Your task to perform on an android device: uninstall "Chime – Mobile Banking" Image 0: 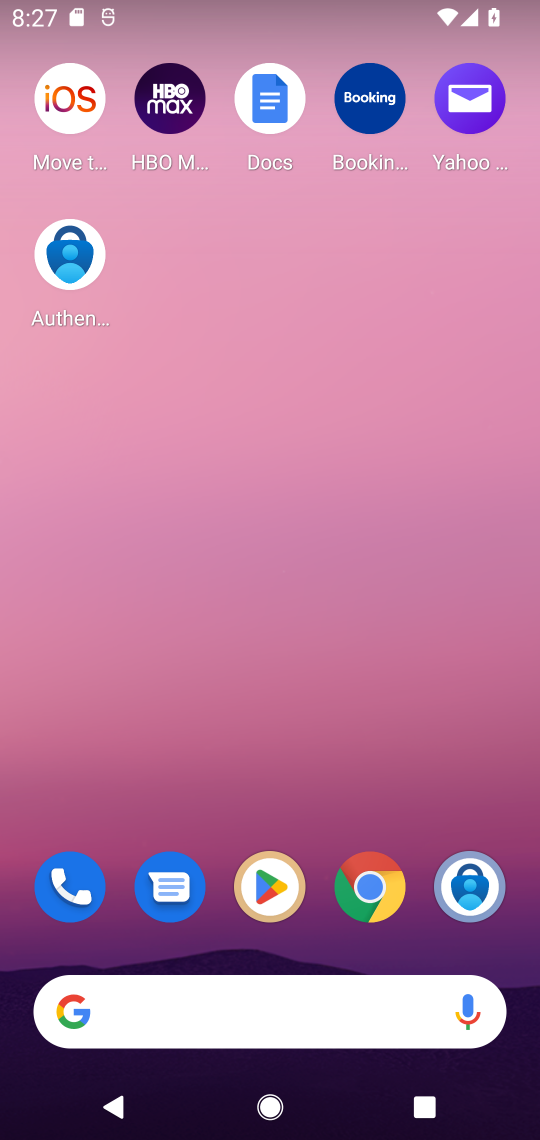
Step 0: drag from (307, 962) to (396, 52)
Your task to perform on an android device: uninstall "Chime – Mobile Banking" Image 1: 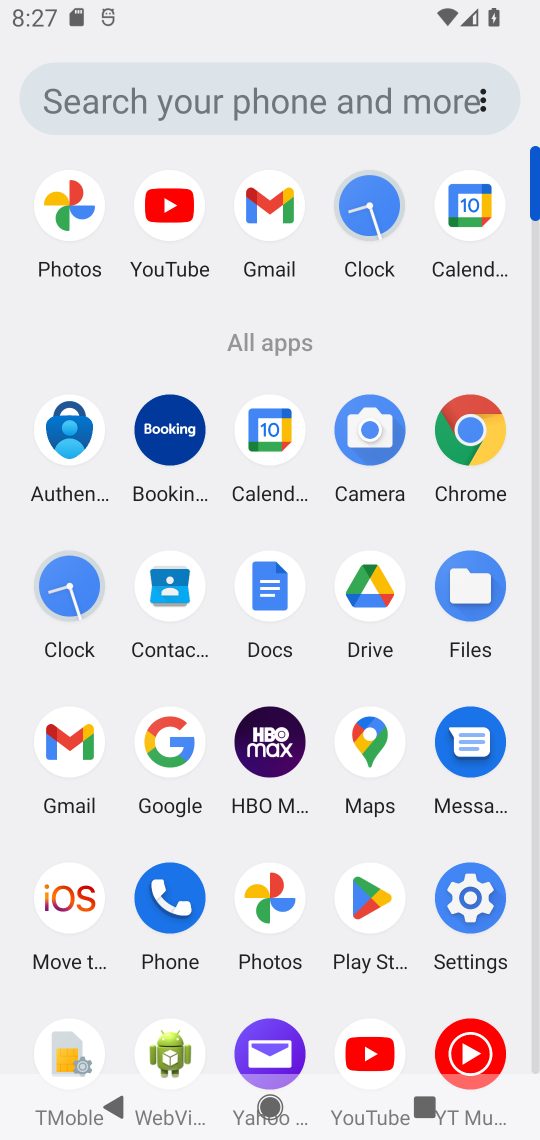
Step 1: click (537, 1044)
Your task to perform on an android device: uninstall "Chime – Mobile Banking" Image 2: 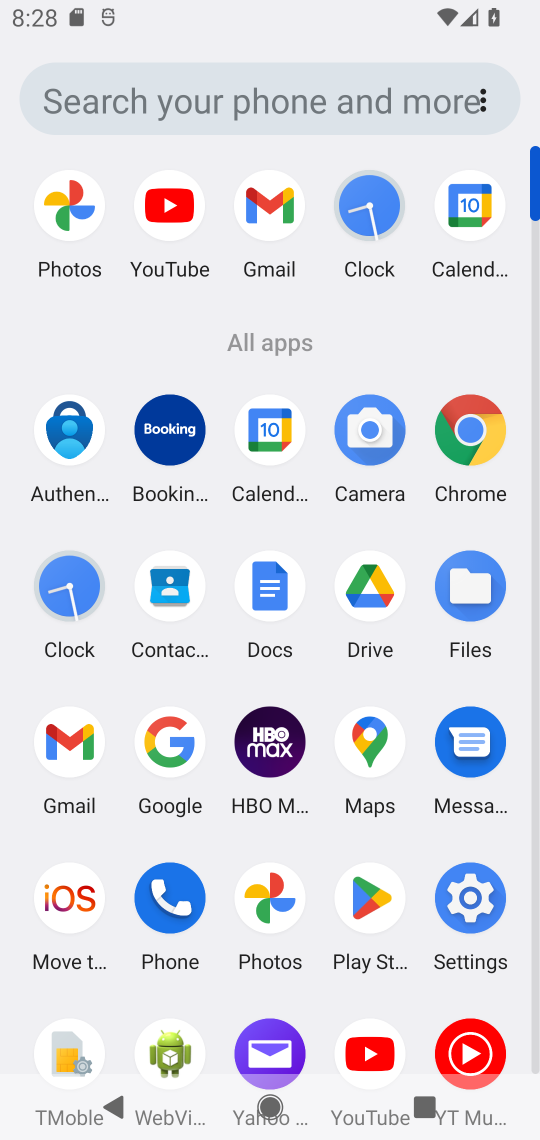
Step 2: click (537, 1044)
Your task to perform on an android device: uninstall "Chime – Mobile Banking" Image 3: 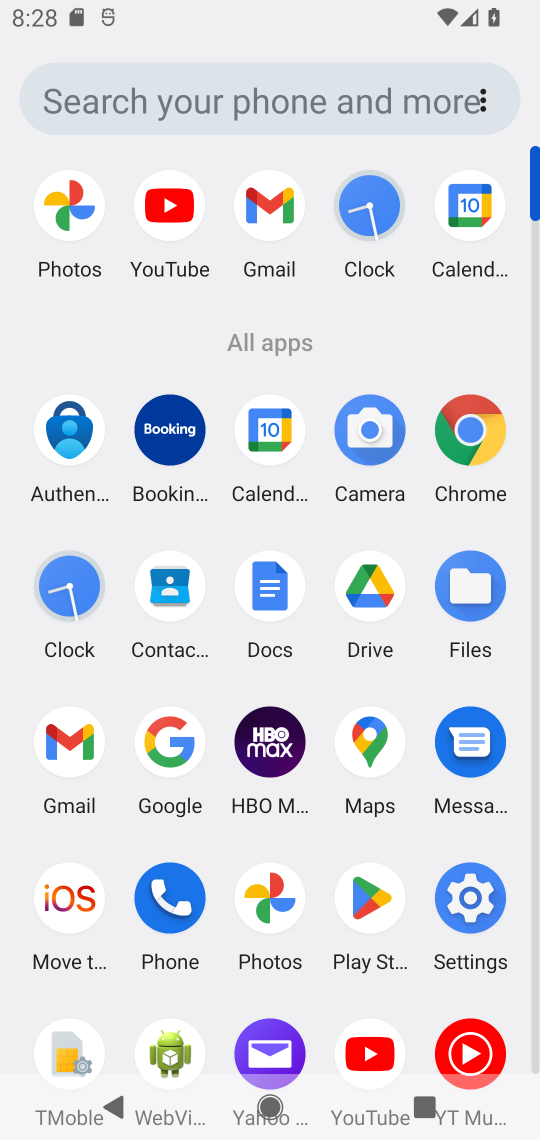
Step 3: click (537, 1044)
Your task to perform on an android device: uninstall "Chime – Mobile Banking" Image 4: 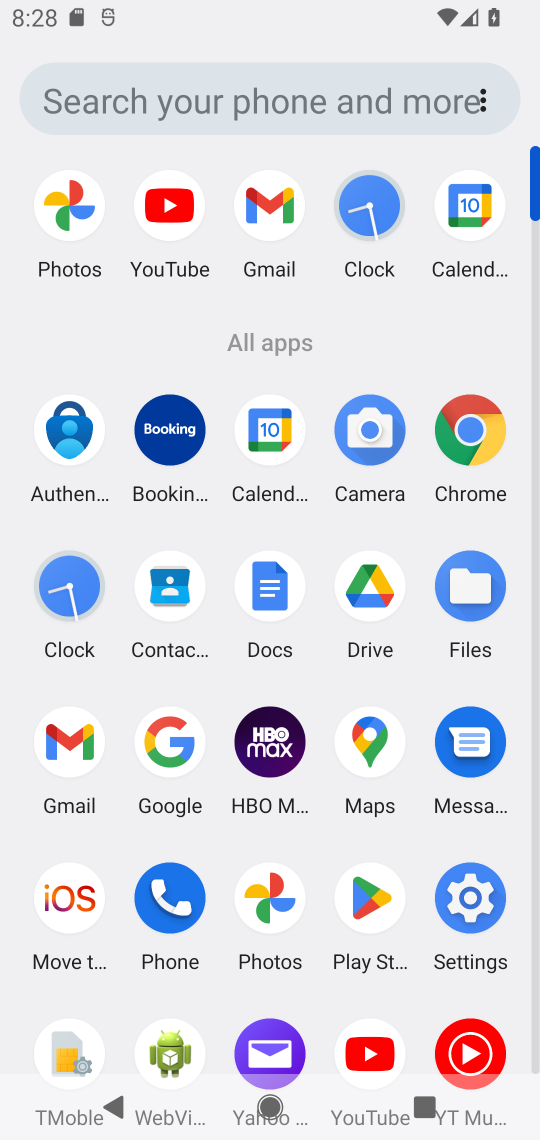
Step 4: click (537, 1044)
Your task to perform on an android device: uninstall "Chime – Mobile Banking" Image 5: 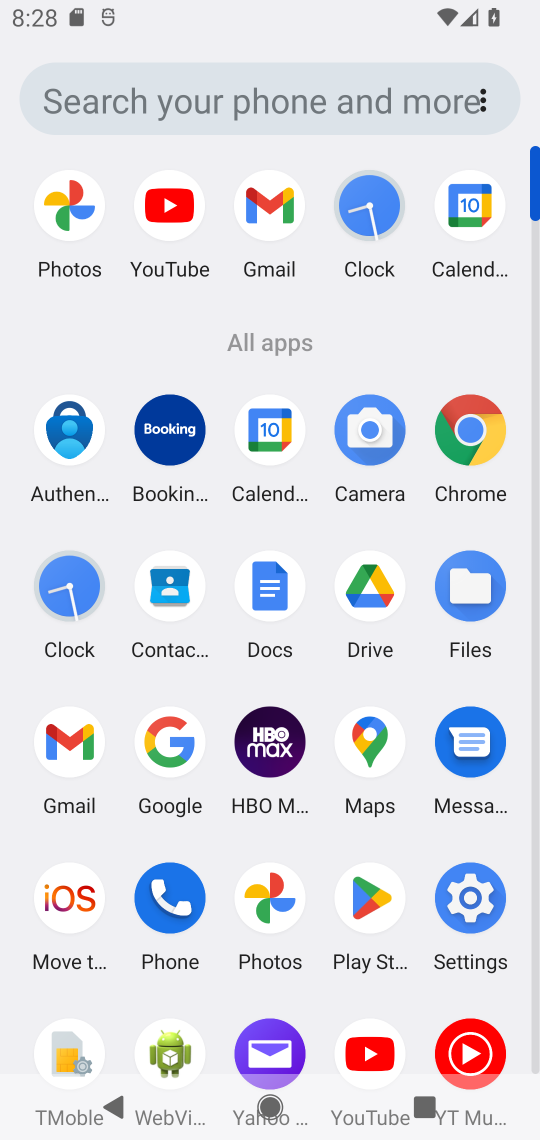
Step 5: click (537, 1044)
Your task to perform on an android device: uninstall "Chime – Mobile Banking" Image 6: 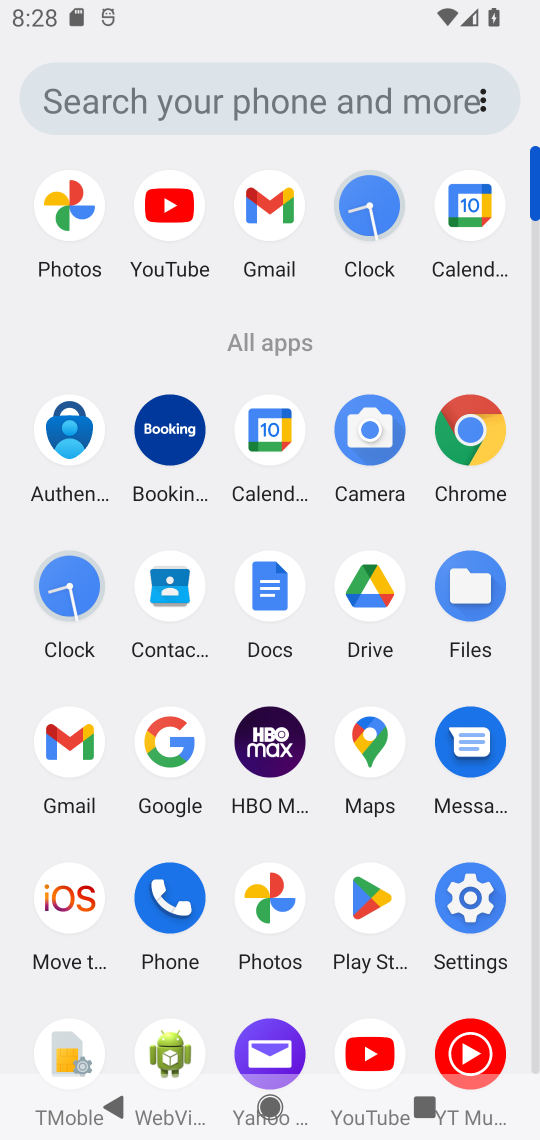
Step 6: click (364, 902)
Your task to perform on an android device: uninstall "Chime – Mobile Banking" Image 7: 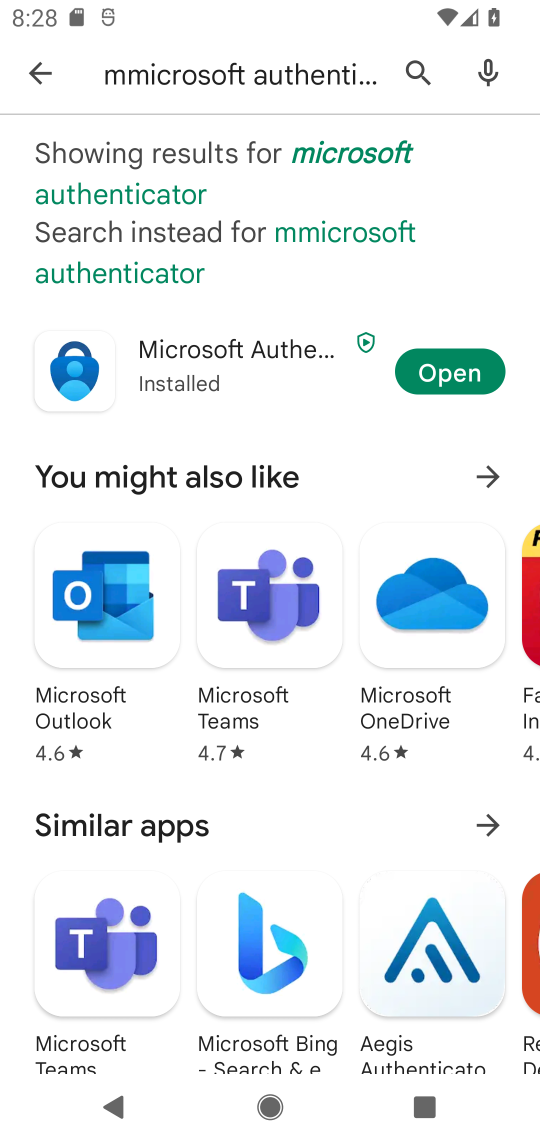
Step 7: click (408, 69)
Your task to perform on an android device: uninstall "Chime – Mobile Banking" Image 8: 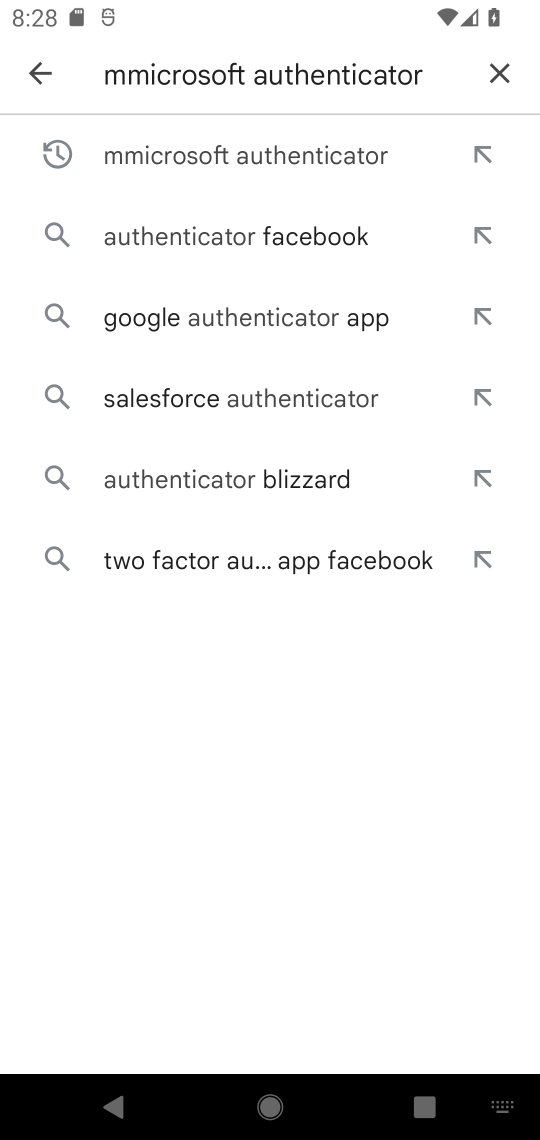
Step 8: click (500, 87)
Your task to perform on an android device: uninstall "Chime – Mobile Banking" Image 9: 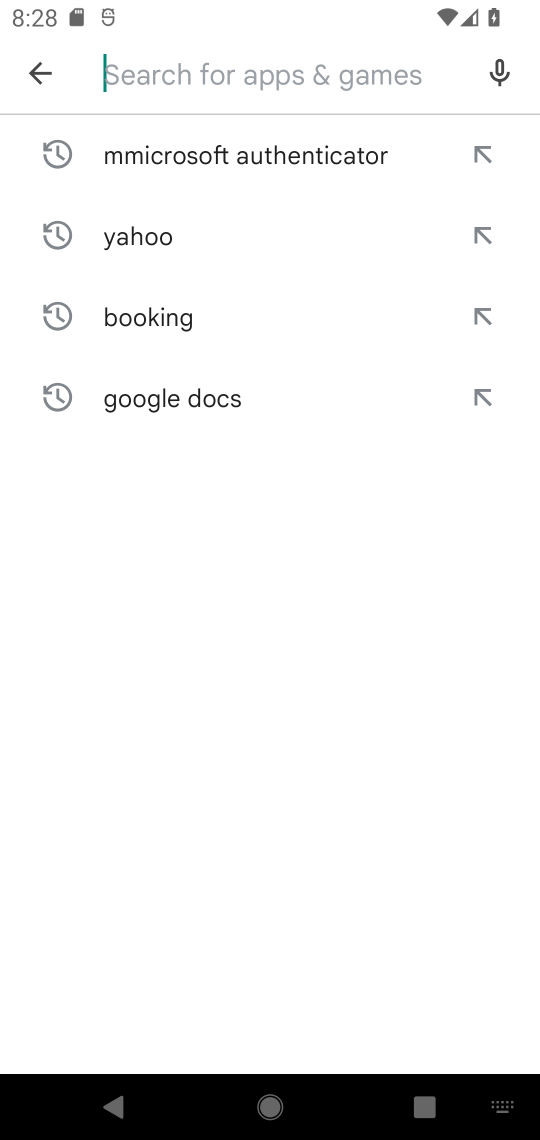
Step 9: type "chinme"
Your task to perform on an android device: uninstall "Chime – Mobile Banking" Image 10: 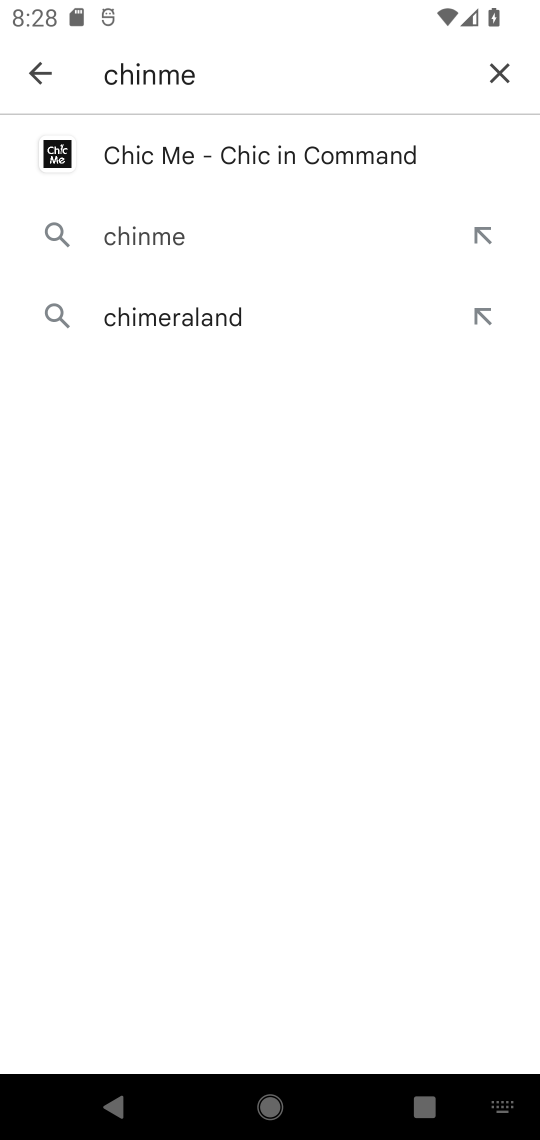
Step 10: click (386, 120)
Your task to perform on an android device: uninstall "Chime – Mobile Banking" Image 11: 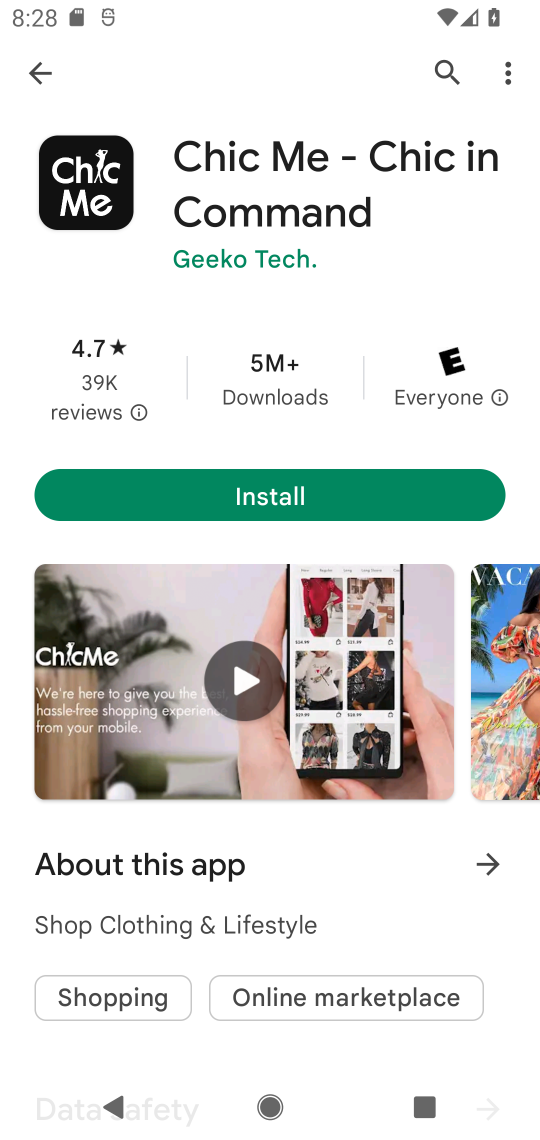
Step 11: click (358, 486)
Your task to perform on an android device: uninstall "Chime – Mobile Banking" Image 12: 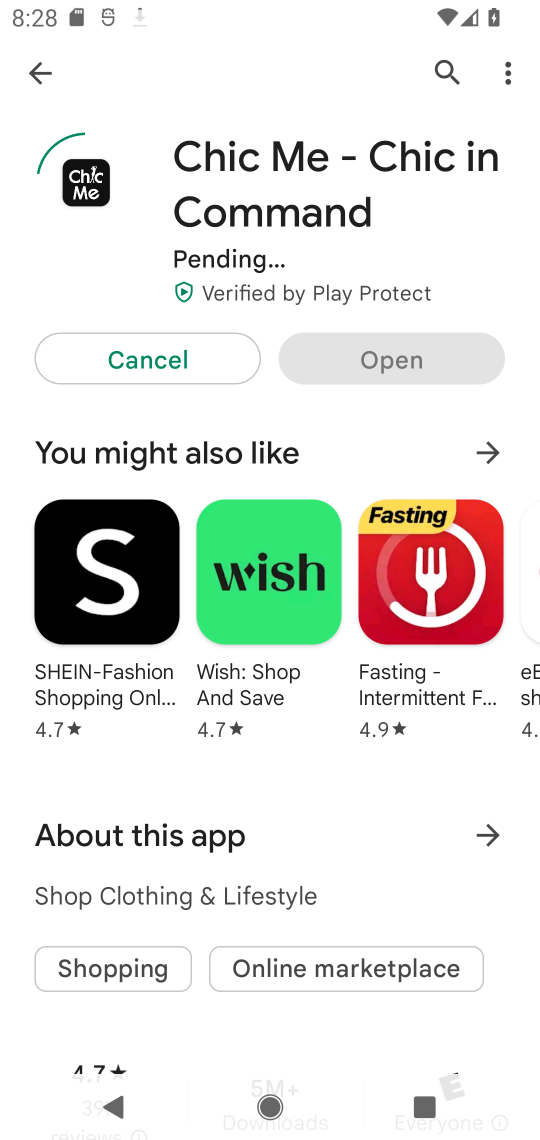
Step 12: task complete